Your task to perform on an android device: add a contact in the contacts app Image 0: 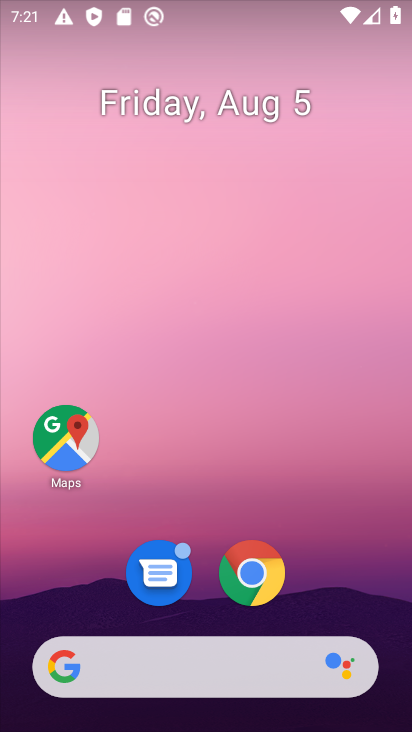
Step 0: drag from (324, 548) to (301, 10)
Your task to perform on an android device: add a contact in the contacts app Image 1: 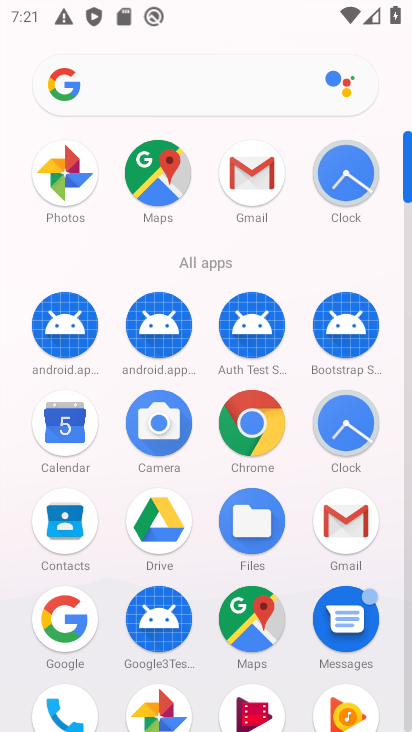
Step 1: click (70, 516)
Your task to perform on an android device: add a contact in the contacts app Image 2: 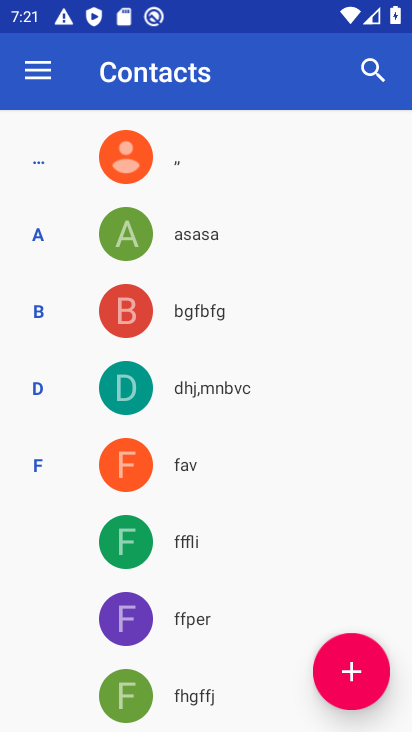
Step 2: click (345, 658)
Your task to perform on an android device: add a contact in the contacts app Image 3: 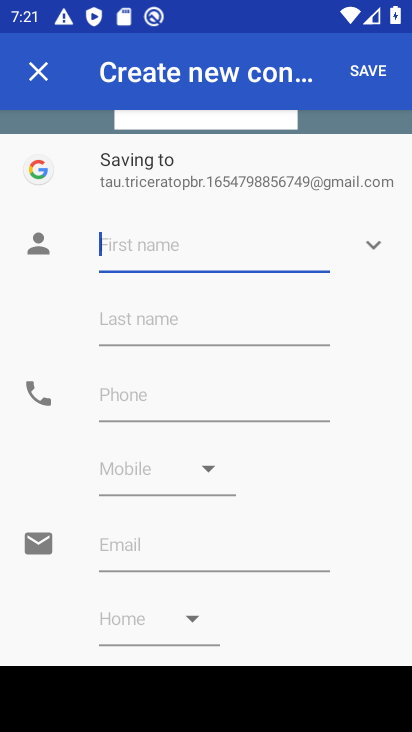
Step 3: type "Abba"
Your task to perform on an android device: add a contact in the contacts app Image 4: 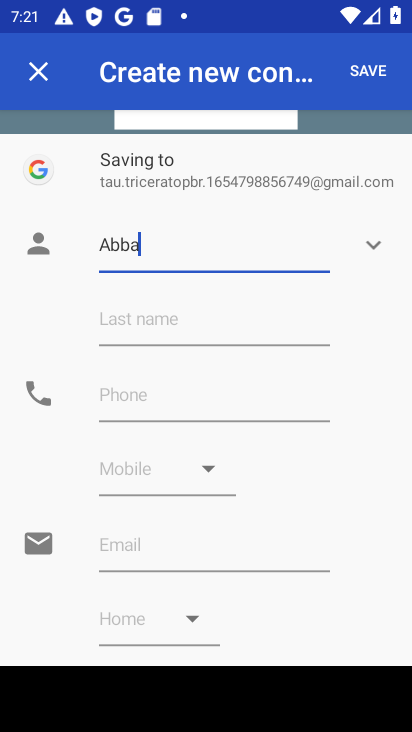
Step 4: click (193, 406)
Your task to perform on an android device: add a contact in the contacts app Image 5: 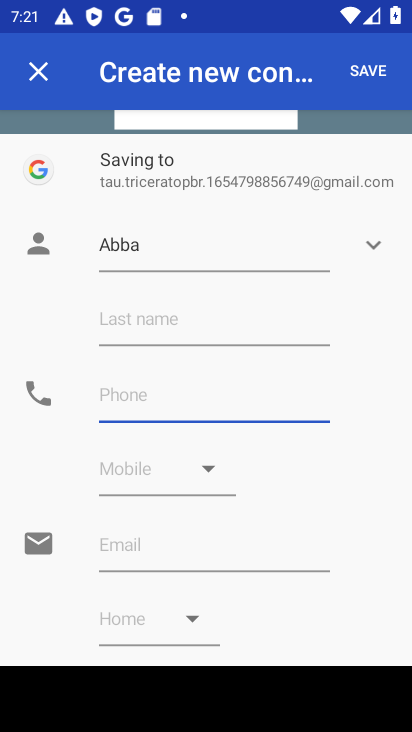
Step 5: type "+919999876543"
Your task to perform on an android device: add a contact in the contacts app Image 6: 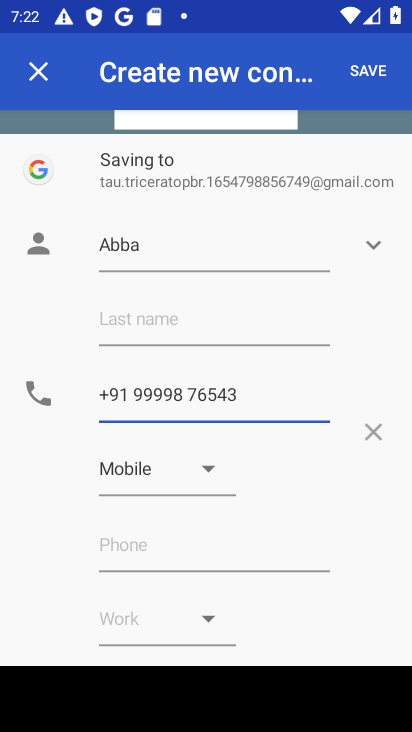
Step 6: click (376, 65)
Your task to perform on an android device: add a contact in the contacts app Image 7: 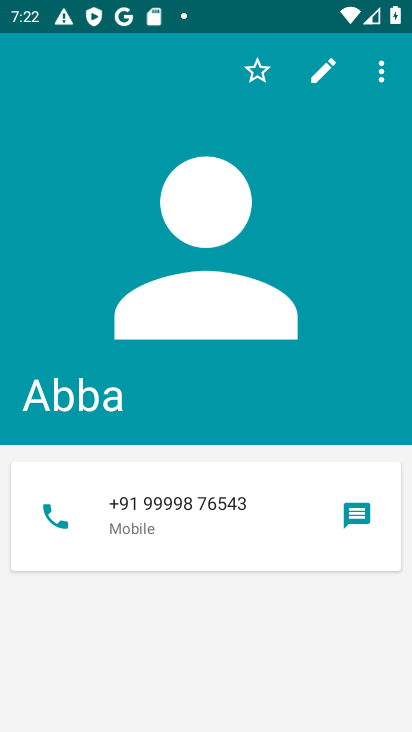
Step 7: task complete